Your task to perform on an android device: choose inbox layout in the gmail app Image 0: 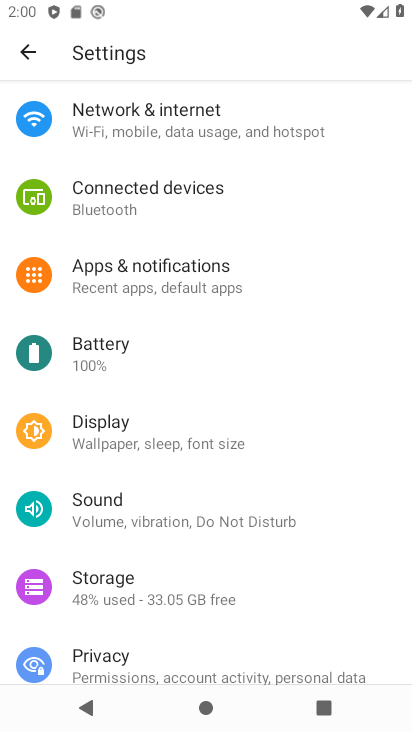
Step 0: press home button
Your task to perform on an android device: choose inbox layout in the gmail app Image 1: 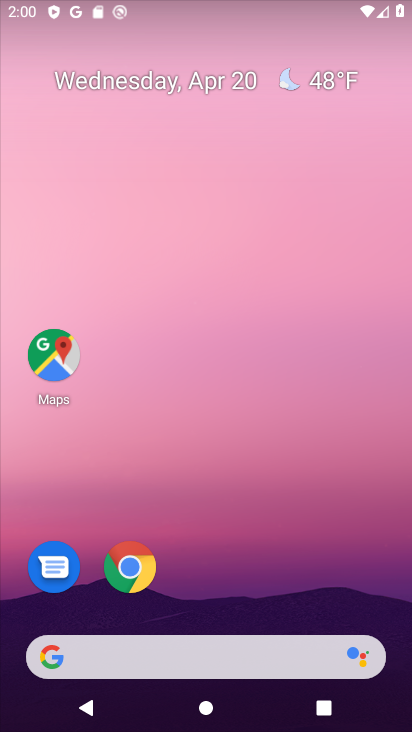
Step 1: drag from (293, 525) to (285, 88)
Your task to perform on an android device: choose inbox layout in the gmail app Image 2: 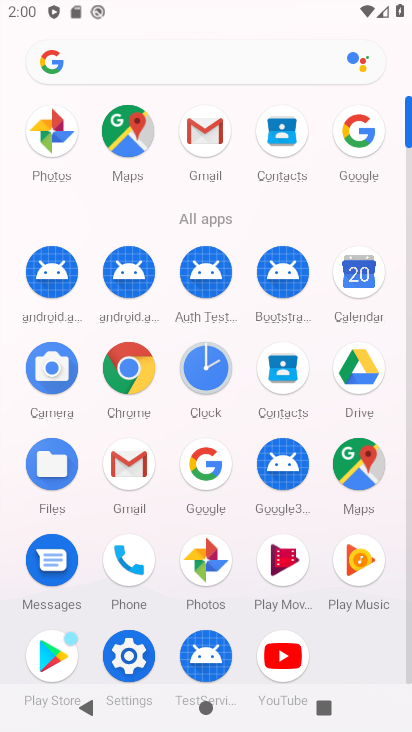
Step 2: click (201, 136)
Your task to perform on an android device: choose inbox layout in the gmail app Image 3: 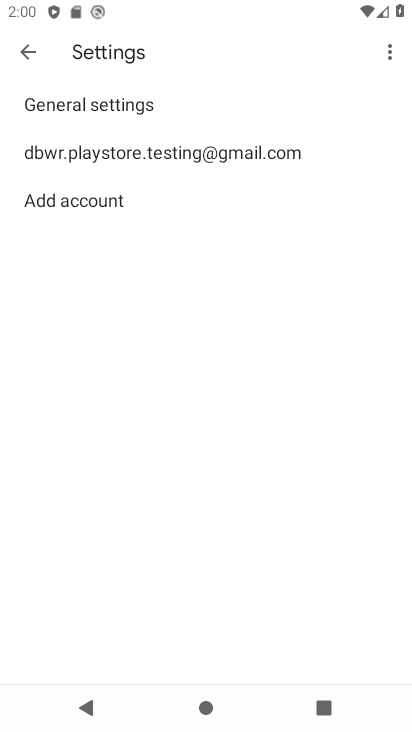
Step 3: click (196, 147)
Your task to perform on an android device: choose inbox layout in the gmail app Image 4: 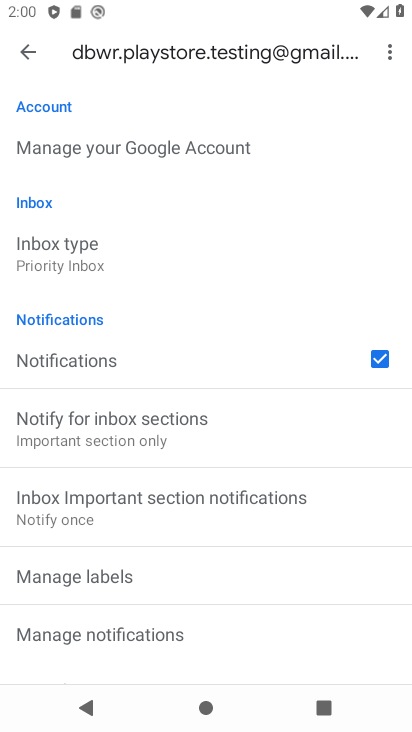
Step 4: click (67, 250)
Your task to perform on an android device: choose inbox layout in the gmail app Image 5: 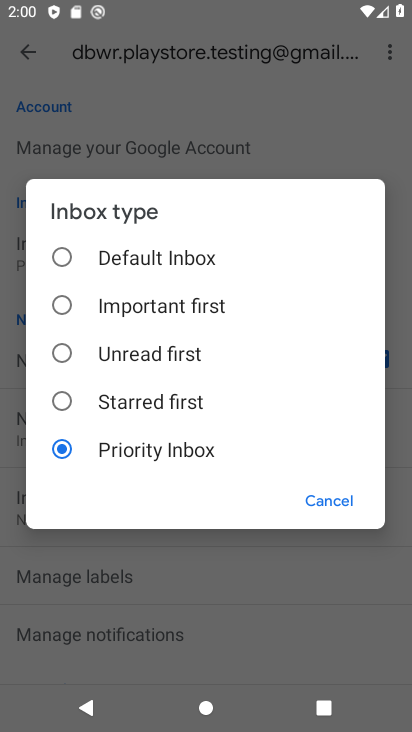
Step 5: click (68, 255)
Your task to perform on an android device: choose inbox layout in the gmail app Image 6: 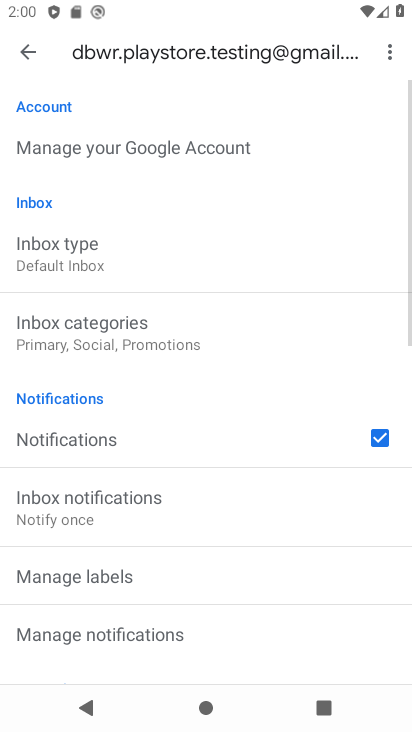
Step 6: task complete